Your task to perform on an android device: Go to eBay Image 0: 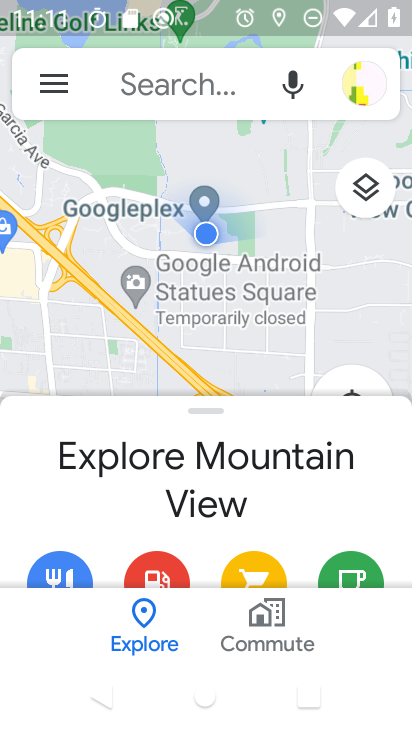
Step 0: click (133, 88)
Your task to perform on an android device: Go to eBay Image 1: 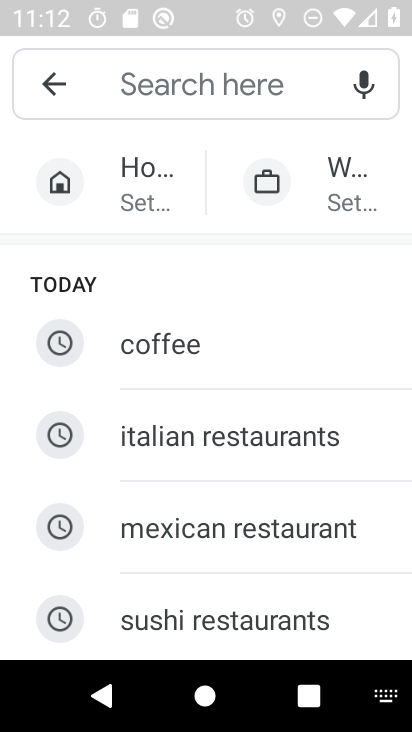
Step 1: type "eBay"
Your task to perform on an android device: Go to eBay Image 2: 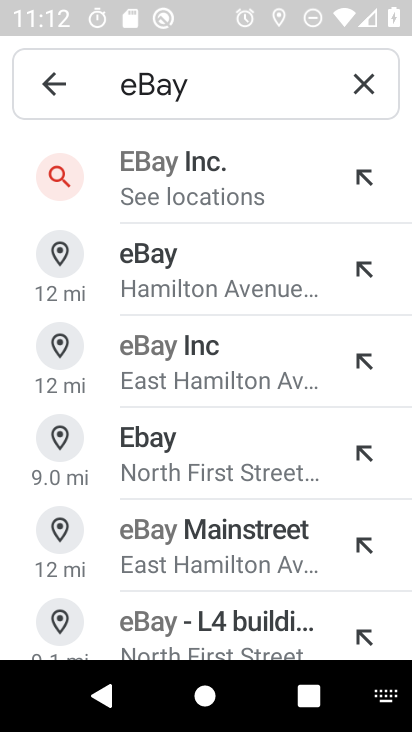
Step 2: click (142, 261)
Your task to perform on an android device: Go to eBay Image 3: 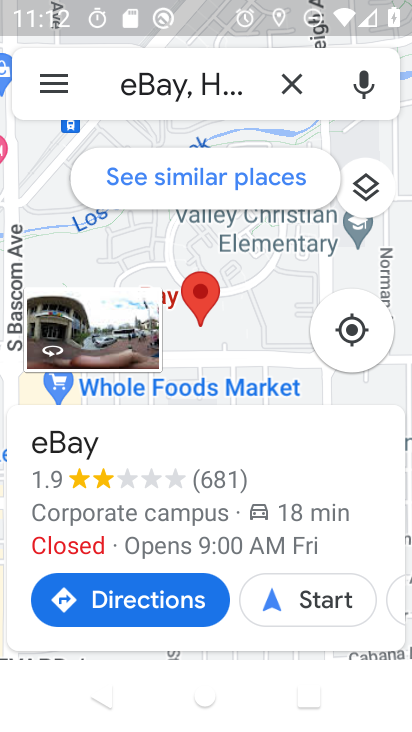
Step 3: task complete